Your task to perform on an android device: Open my contact list Image 0: 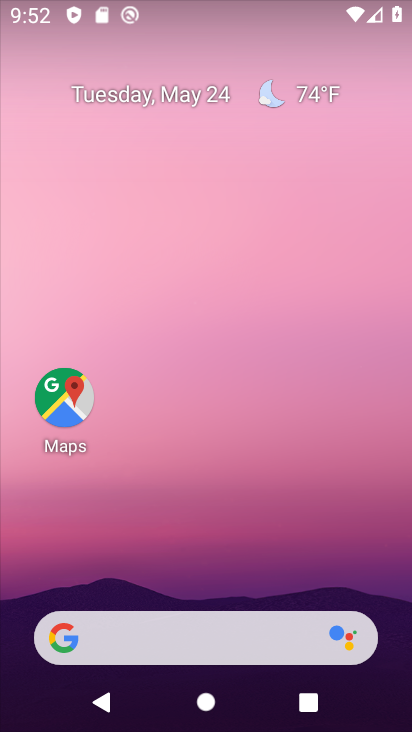
Step 0: drag from (207, 581) to (143, 63)
Your task to perform on an android device: Open my contact list Image 1: 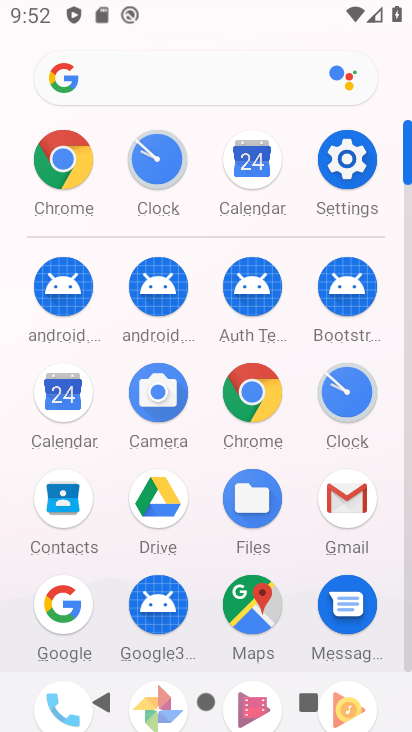
Step 1: drag from (133, 0) to (190, 37)
Your task to perform on an android device: Open my contact list Image 2: 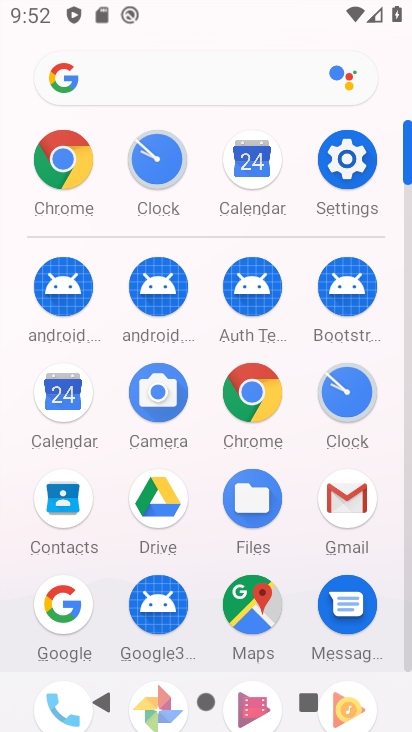
Step 2: drag from (124, 543) to (106, 178)
Your task to perform on an android device: Open my contact list Image 3: 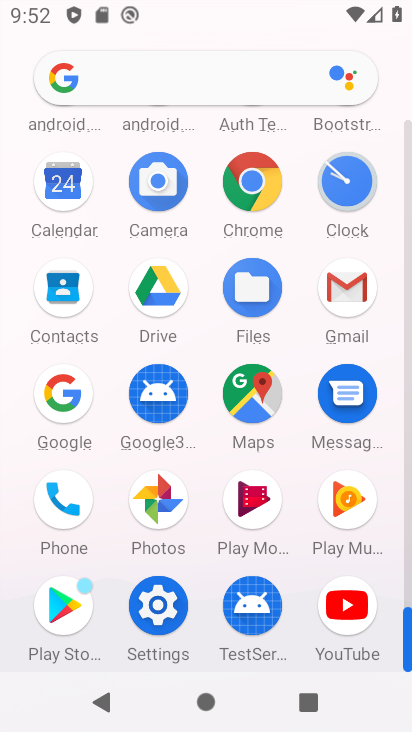
Step 3: click (47, 504)
Your task to perform on an android device: Open my contact list Image 4: 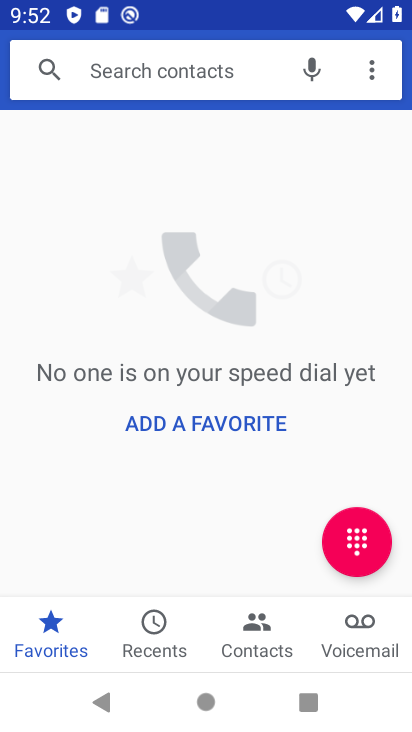
Step 4: click (259, 620)
Your task to perform on an android device: Open my contact list Image 5: 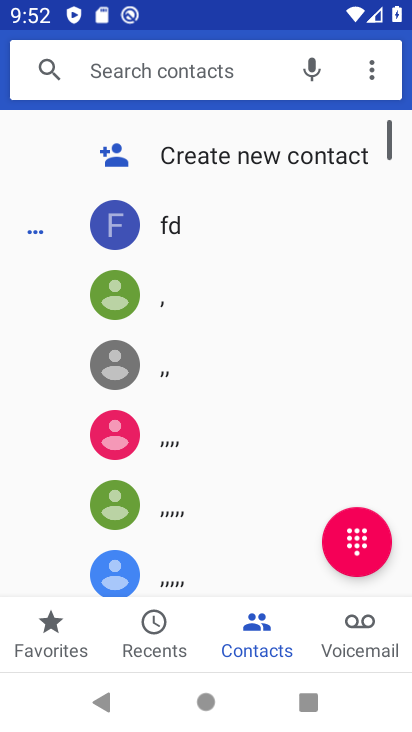
Step 5: task complete